Your task to perform on an android device: When is my next appointment? Image 0: 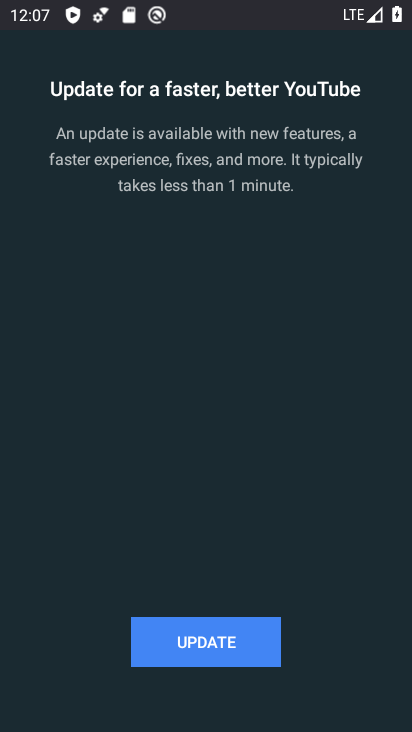
Step 0: press home button
Your task to perform on an android device: When is my next appointment? Image 1: 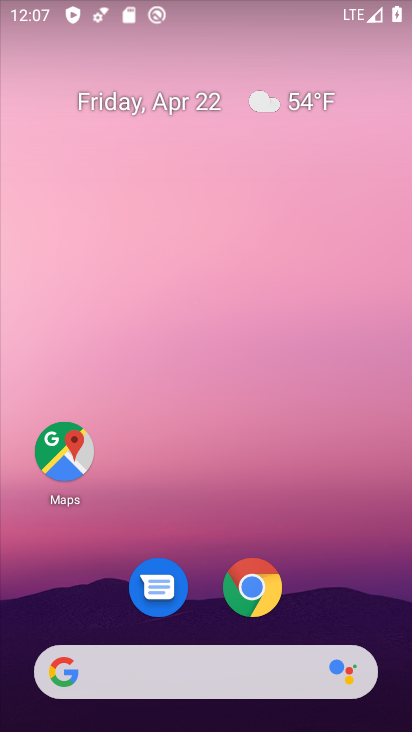
Step 1: drag from (231, 612) to (298, 40)
Your task to perform on an android device: When is my next appointment? Image 2: 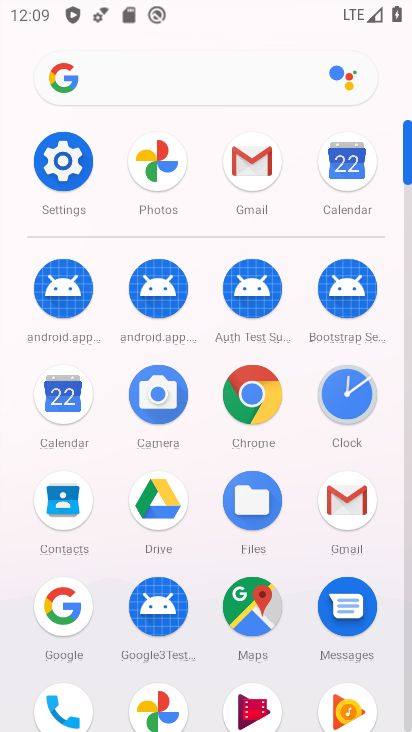
Step 2: click (69, 400)
Your task to perform on an android device: When is my next appointment? Image 3: 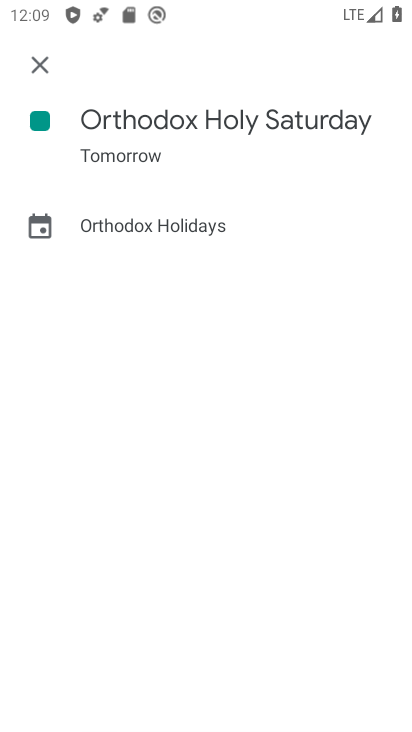
Step 3: click (40, 66)
Your task to perform on an android device: When is my next appointment? Image 4: 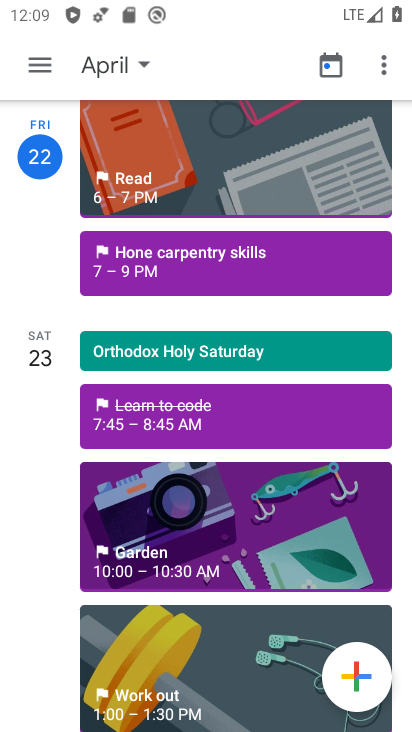
Step 4: task complete